Your task to perform on an android device: read, delete, or share a saved page in the chrome app Image 0: 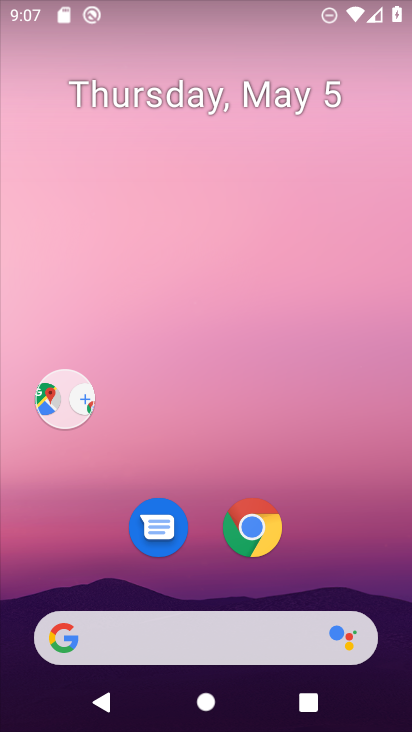
Step 0: drag from (375, 590) to (0, 18)
Your task to perform on an android device: read, delete, or share a saved page in the chrome app Image 1: 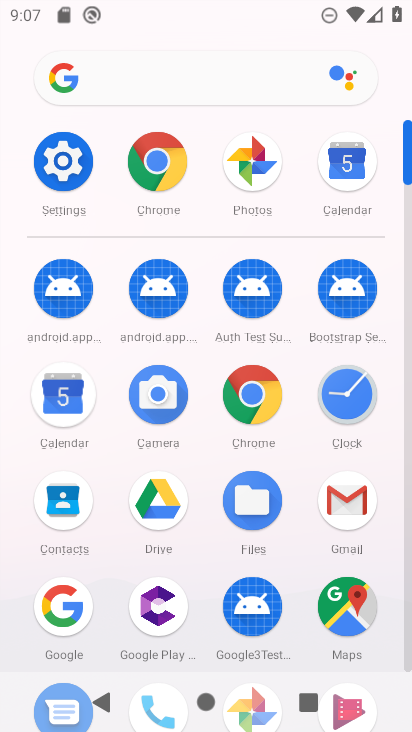
Step 1: click (147, 148)
Your task to perform on an android device: read, delete, or share a saved page in the chrome app Image 2: 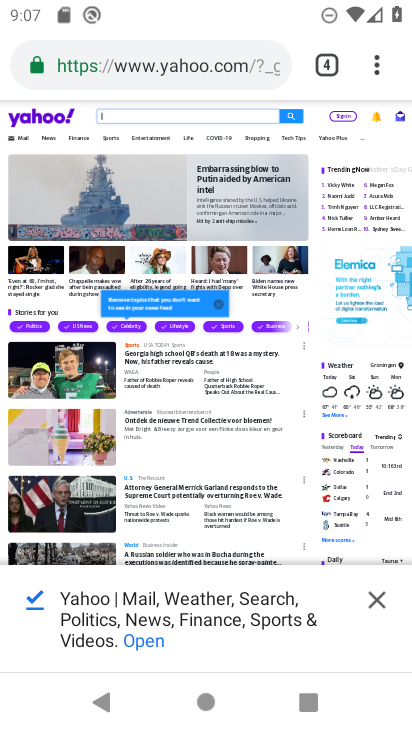
Step 2: press home button
Your task to perform on an android device: read, delete, or share a saved page in the chrome app Image 3: 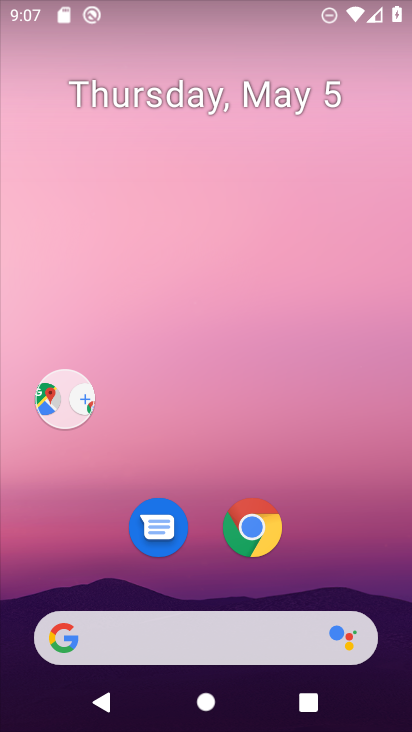
Step 3: drag from (332, 546) to (185, 108)
Your task to perform on an android device: read, delete, or share a saved page in the chrome app Image 4: 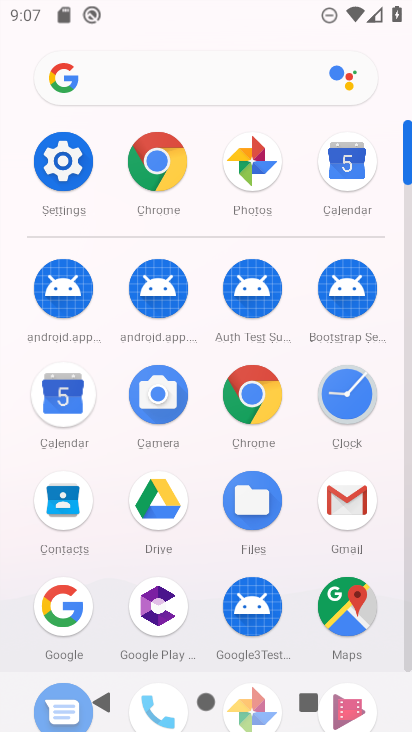
Step 4: click (163, 159)
Your task to perform on an android device: read, delete, or share a saved page in the chrome app Image 5: 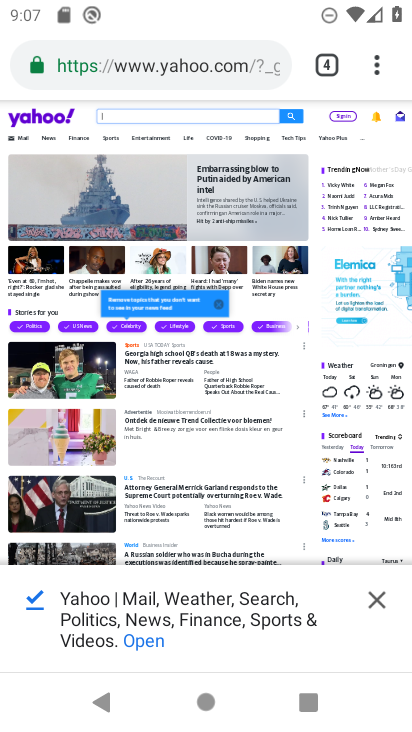
Step 5: click (380, 61)
Your task to perform on an android device: read, delete, or share a saved page in the chrome app Image 6: 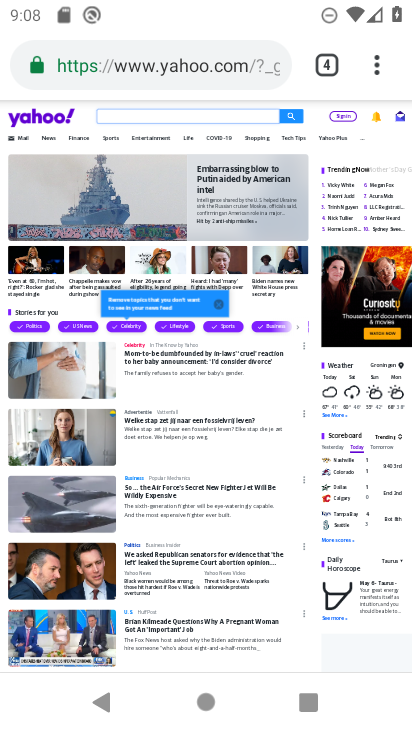
Step 6: click (378, 69)
Your task to perform on an android device: read, delete, or share a saved page in the chrome app Image 7: 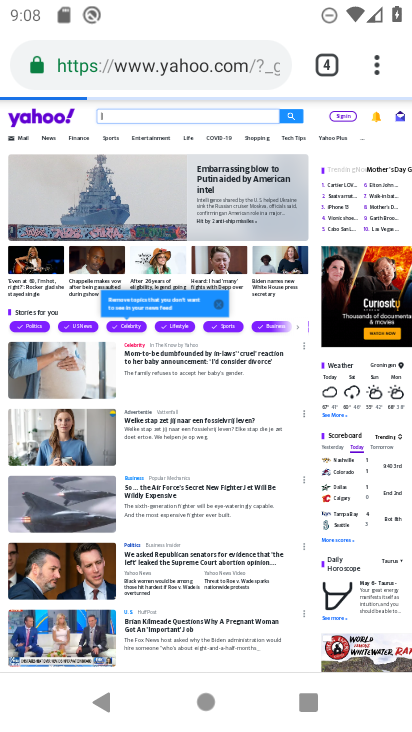
Step 7: click (378, 64)
Your task to perform on an android device: read, delete, or share a saved page in the chrome app Image 8: 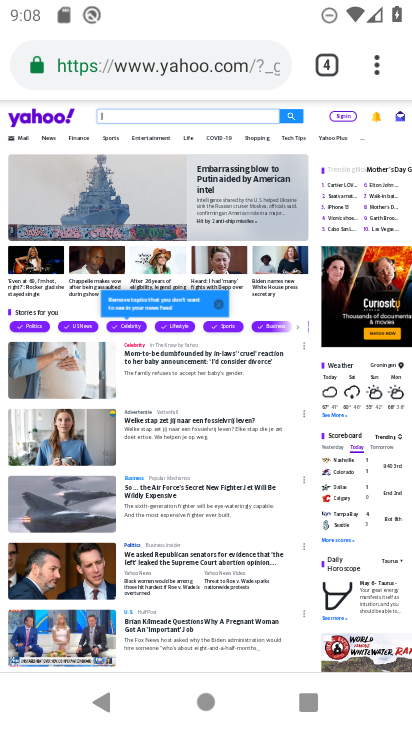
Step 8: click (378, 64)
Your task to perform on an android device: read, delete, or share a saved page in the chrome app Image 9: 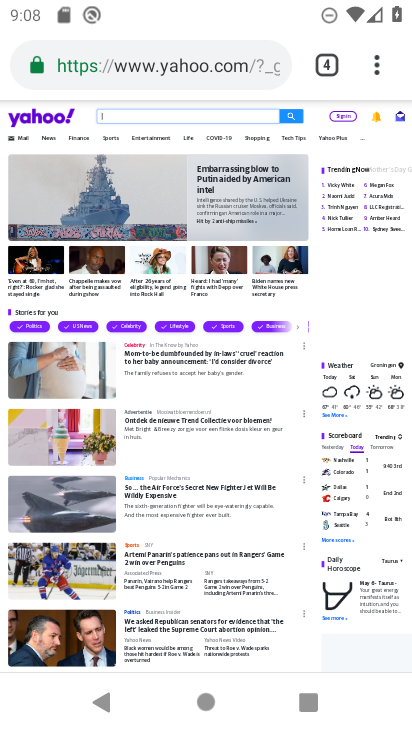
Step 9: click (376, 63)
Your task to perform on an android device: read, delete, or share a saved page in the chrome app Image 10: 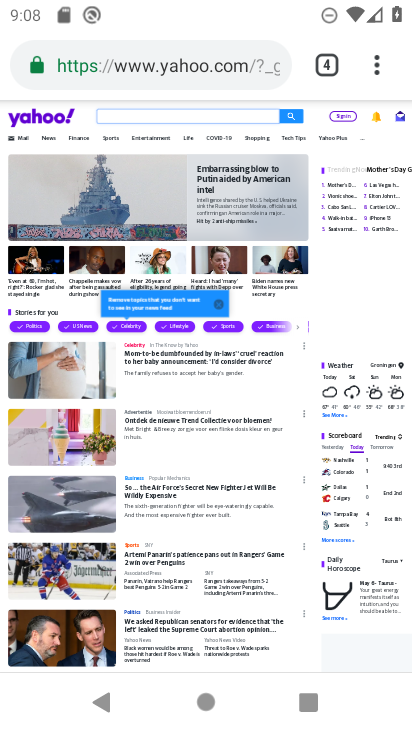
Step 10: click (376, 69)
Your task to perform on an android device: read, delete, or share a saved page in the chrome app Image 11: 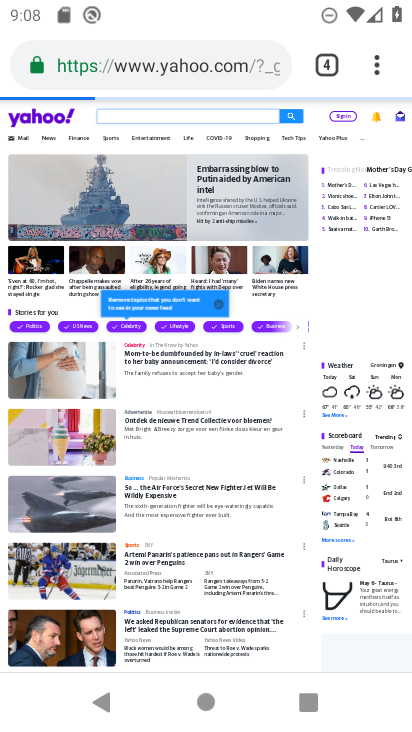
Step 11: click (376, 69)
Your task to perform on an android device: read, delete, or share a saved page in the chrome app Image 12: 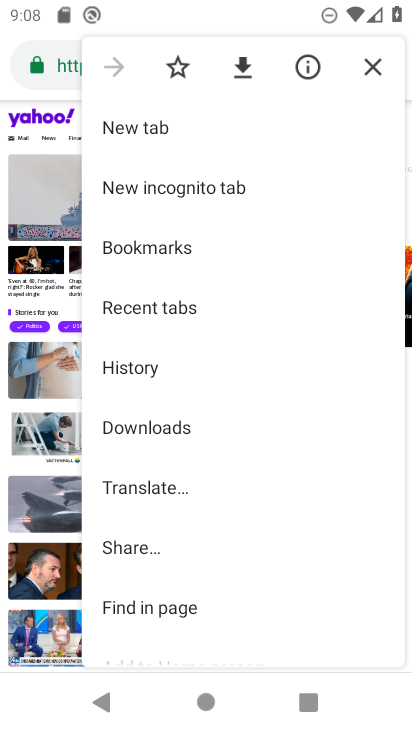
Step 12: click (147, 423)
Your task to perform on an android device: read, delete, or share a saved page in the chrome app Image 13: 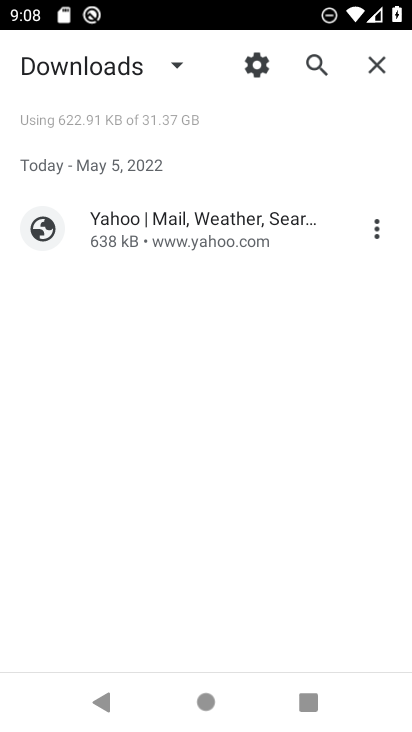
Step 13: click (174, 59)
Your task to perform on an android device: read, delete, or share a saved page in the chrome app Image 14: 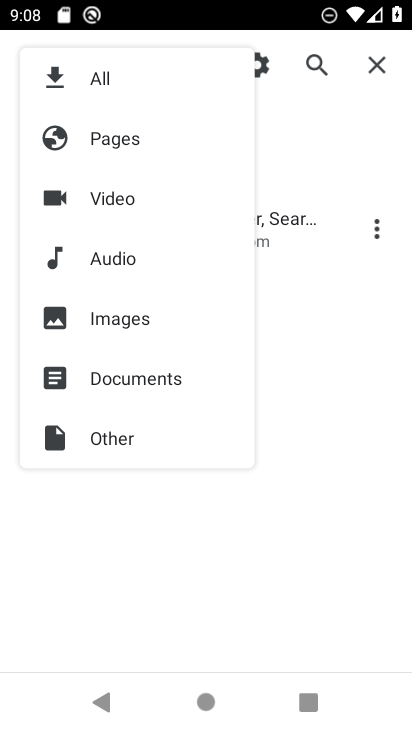
Step 14: click (111, 133)
Your task to perform on an android device: read, delete, or share a saved page in the chrome app Image 15: 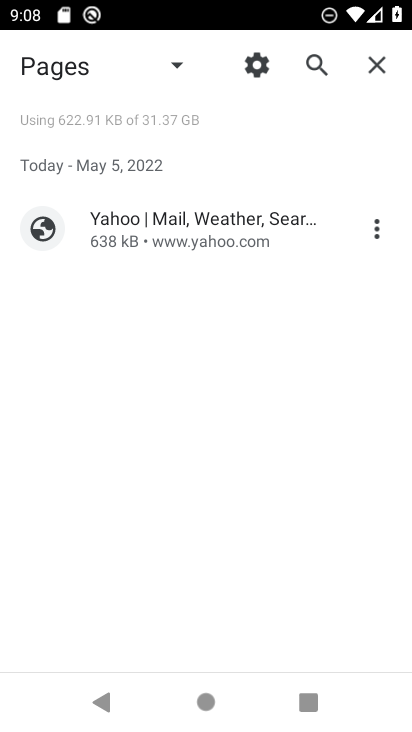
Step 15: task complete